Your task to perform on an android device: Search for "logitech g pro" on amazon, select the first entry, and add it to the cart. Image 0: 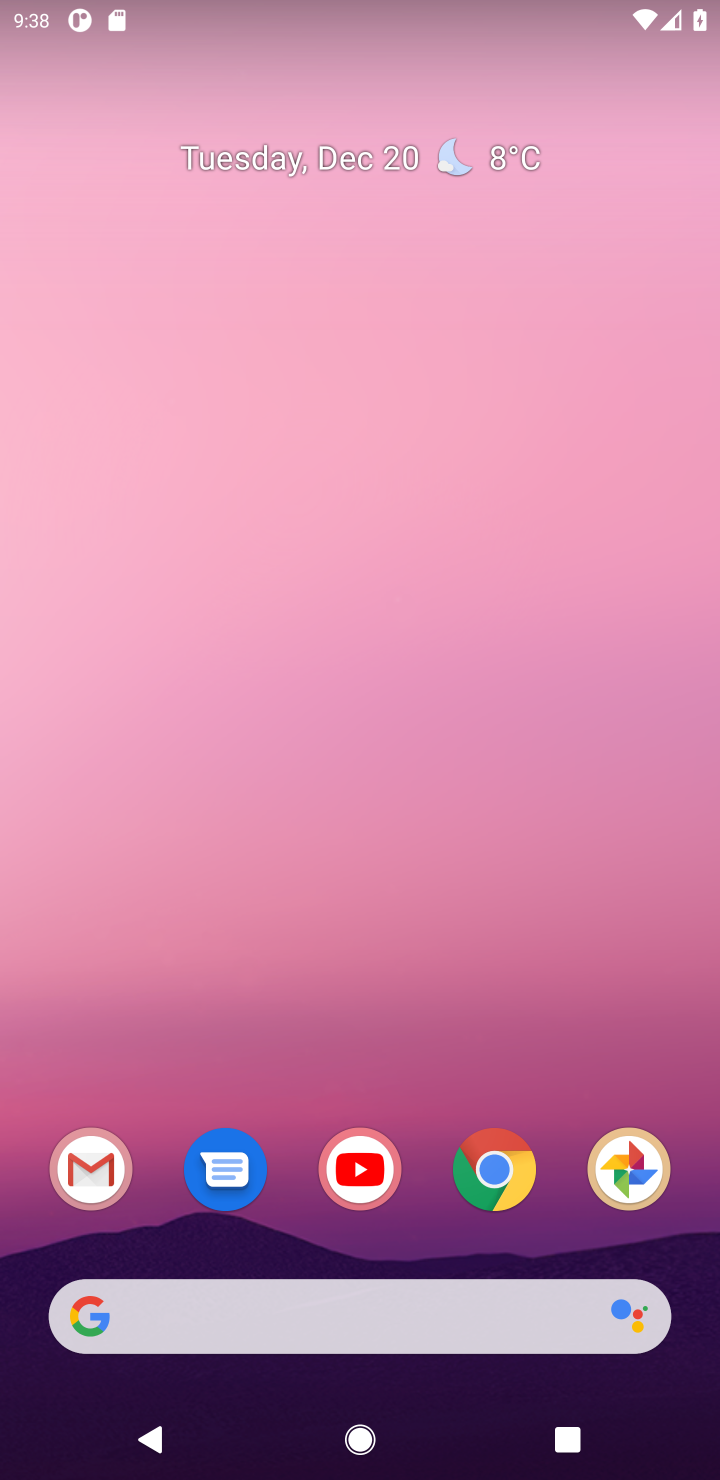
Step 0: click (506, 1193)
Your task to perform on an android device: Search for "logitech g pro" on amazon, select the first entry, and add it to the cart. Image 1: 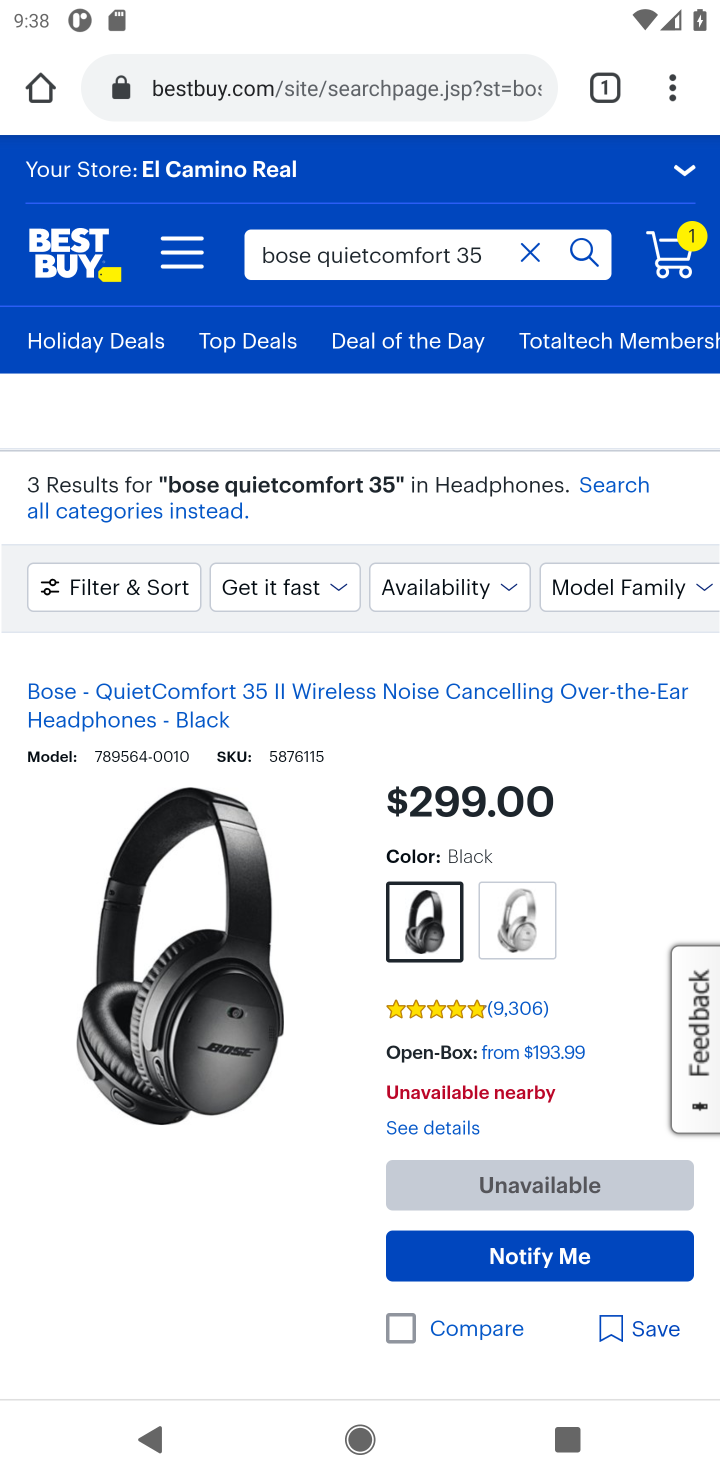
Step 1: click (280, 94)
Your task to perform on an android device: Search for "logitech g pro" on amazon, select the first entry, and add it to the cart. Image 2: 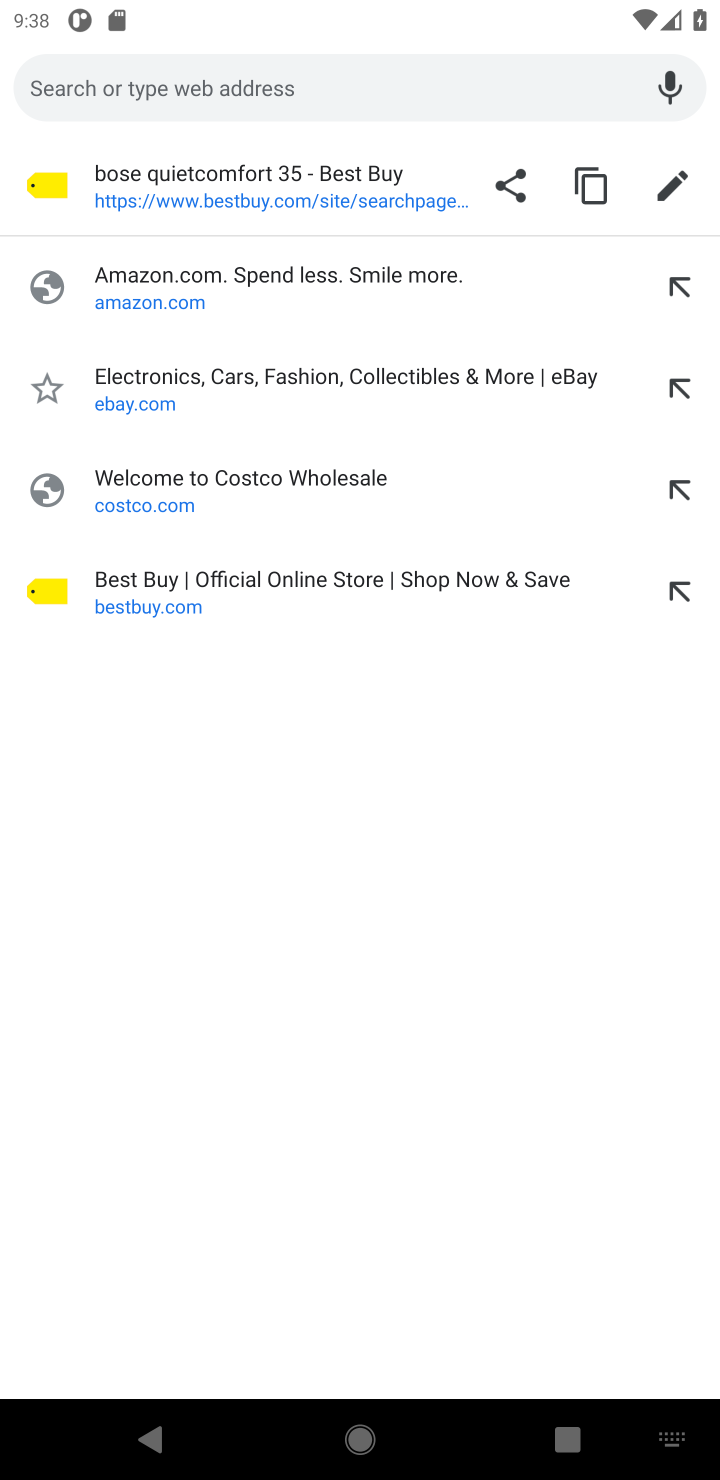
Step 2: type "amazon"
Your task to perform on an android device: Search for "logitech g pro" on amazon, select the first entry, and add it to the cart. Image 3: 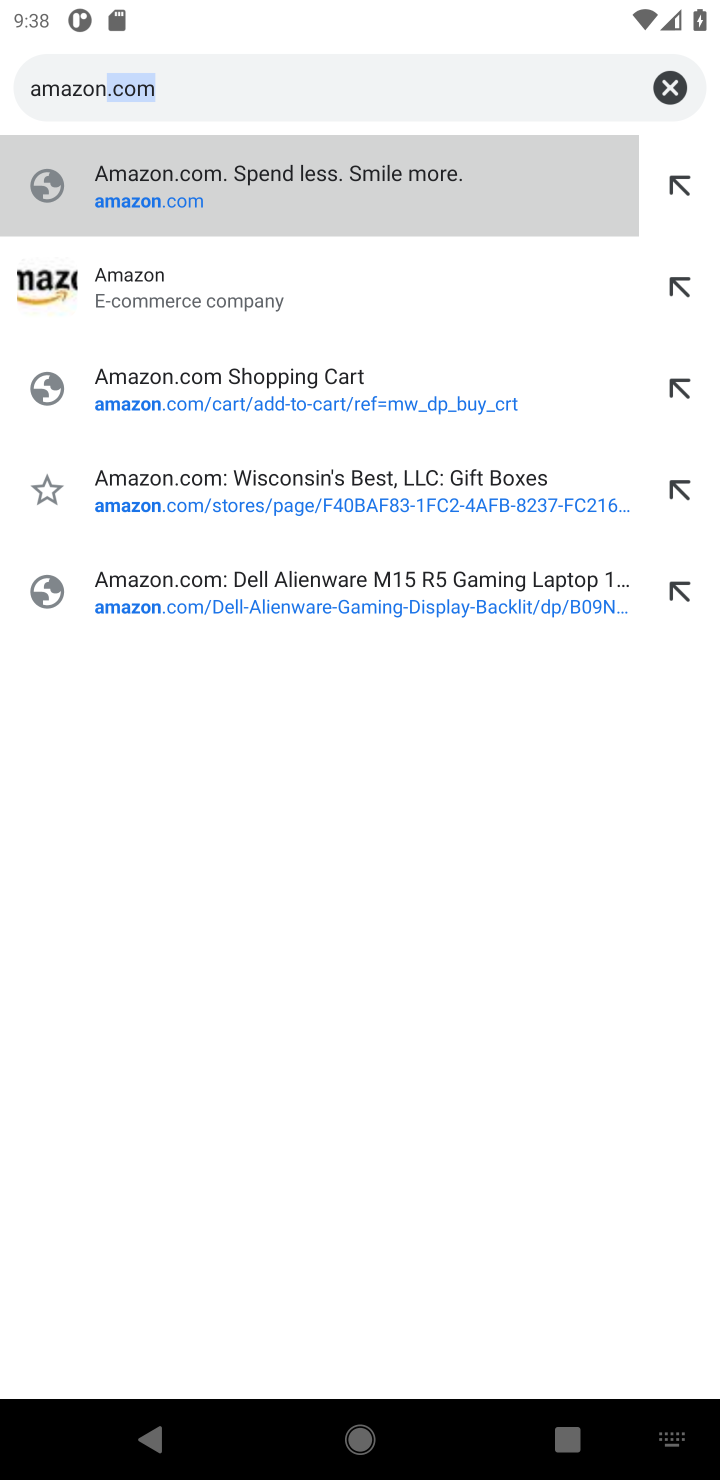
Step 3: click (223, 225)
Your task to perform on an android device: Search for "logitech g pro" on amazon, select the first entry, and add it to the cart. Image 4: 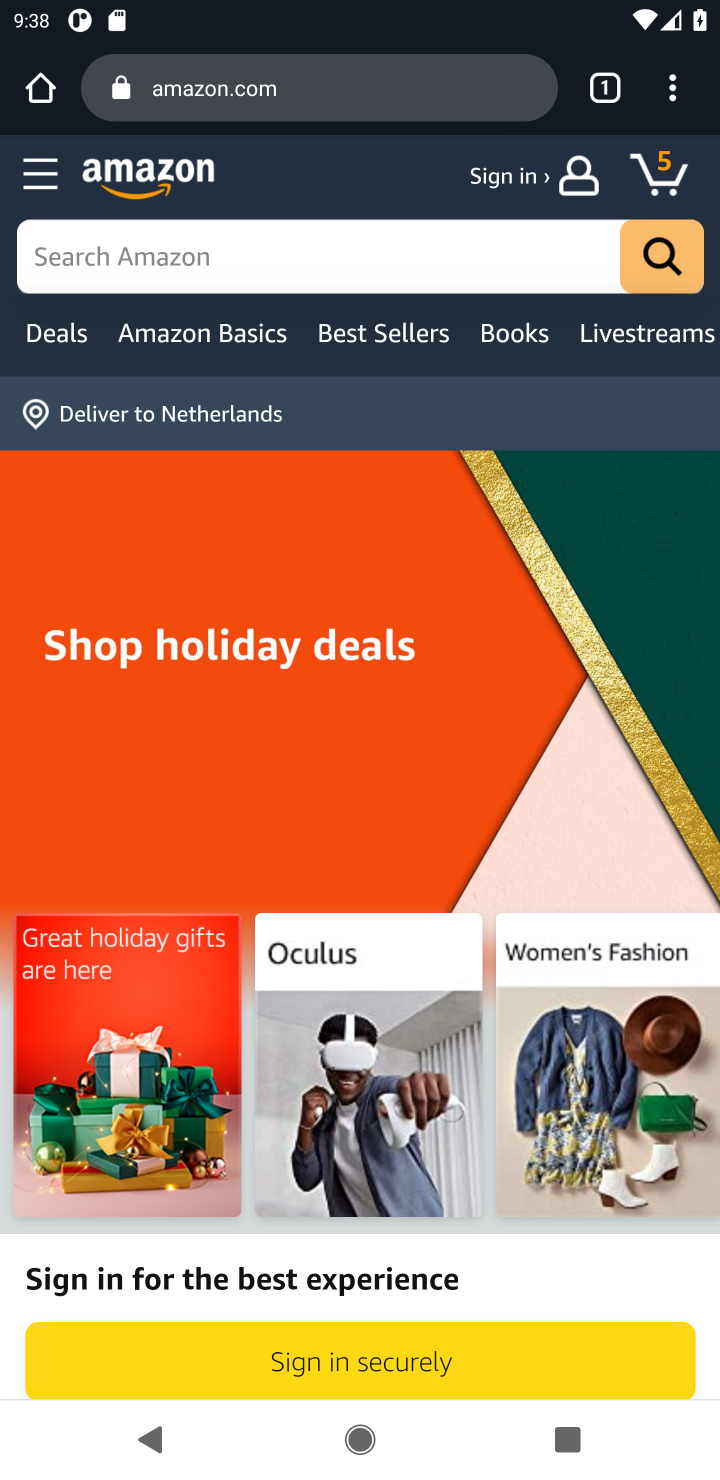
Step 4: click (204, 259)
Your task to perform on an android device: Search for "logitech g pro" on amazon, select the first entry, and add it to the cart. Image 5: 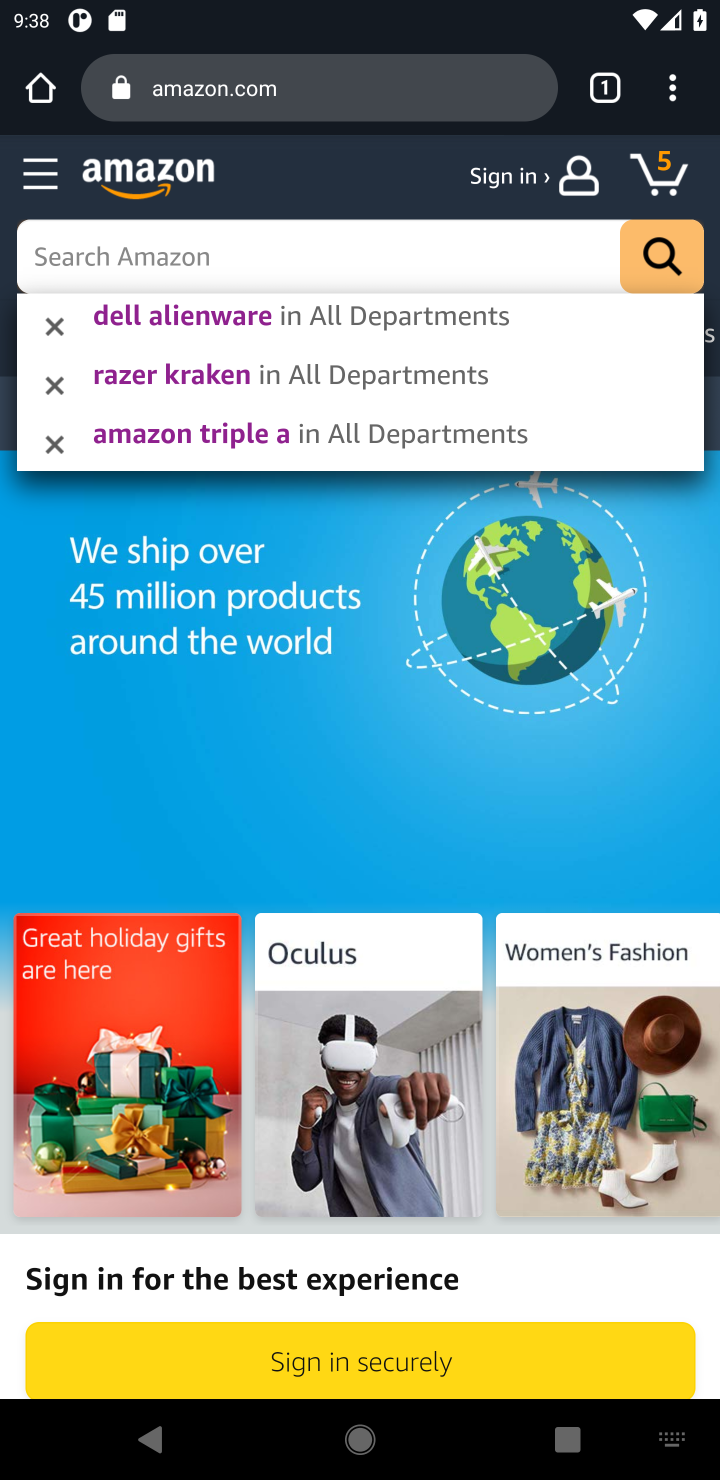
Step 5: type "logitech g pro"
Your task to perform on an android device: Search for "logitech g pro" on amazon, select the first entry, and add it to the cart. Image 6: 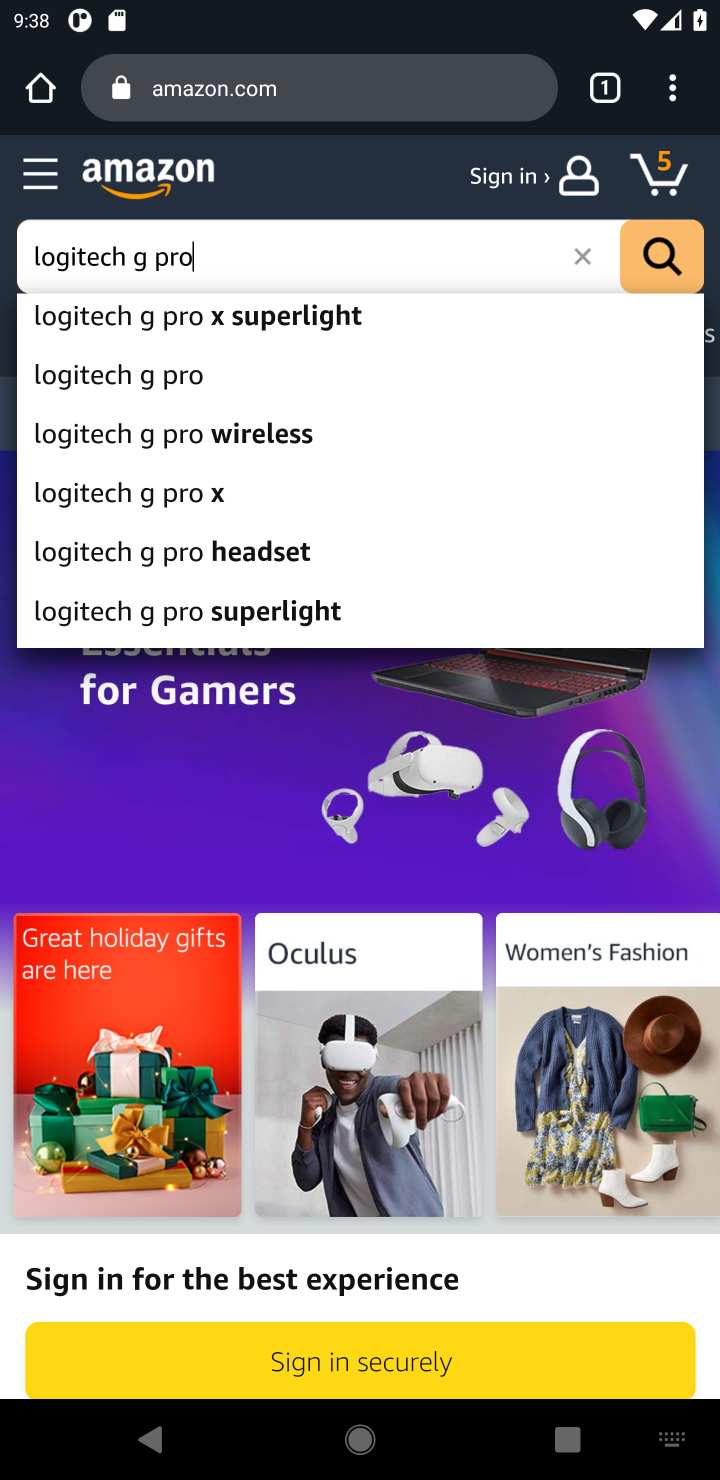
Step 6: click (642, 267)
Your task to perform on an android device: Search for "logitech g pro" on amazon, select the first entry, and add it to the cart. Image 7: 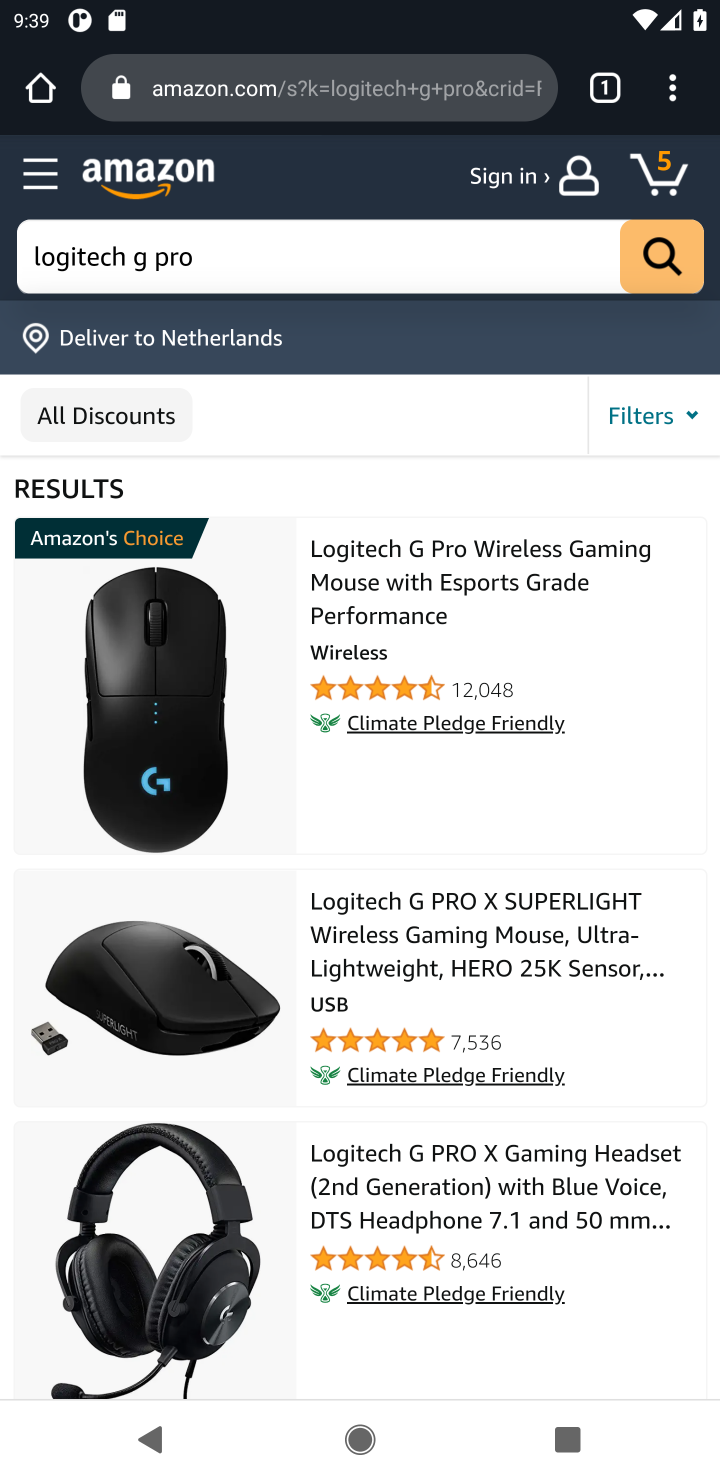
Step 7: click (547, 552)
Your task to perform on an android device: Search for "logitech g pro" on amazon, select the first entry, and add it to the cart. Image 8: 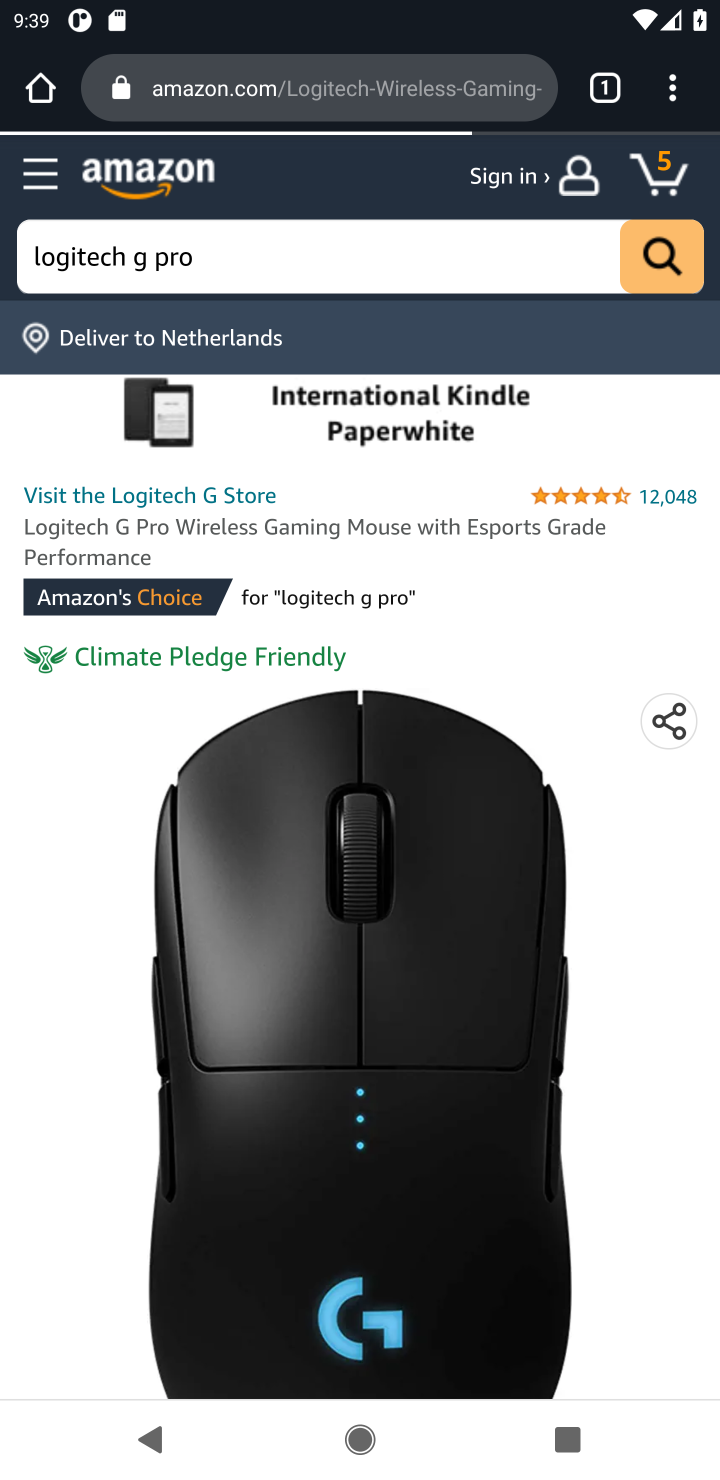
Step 8: drag from (486, 1127) to (416, 321)
Your task to perform on an android device: Search for "logitech g pro" on amazon, select the first entry, and add it to the cart. Image 9: 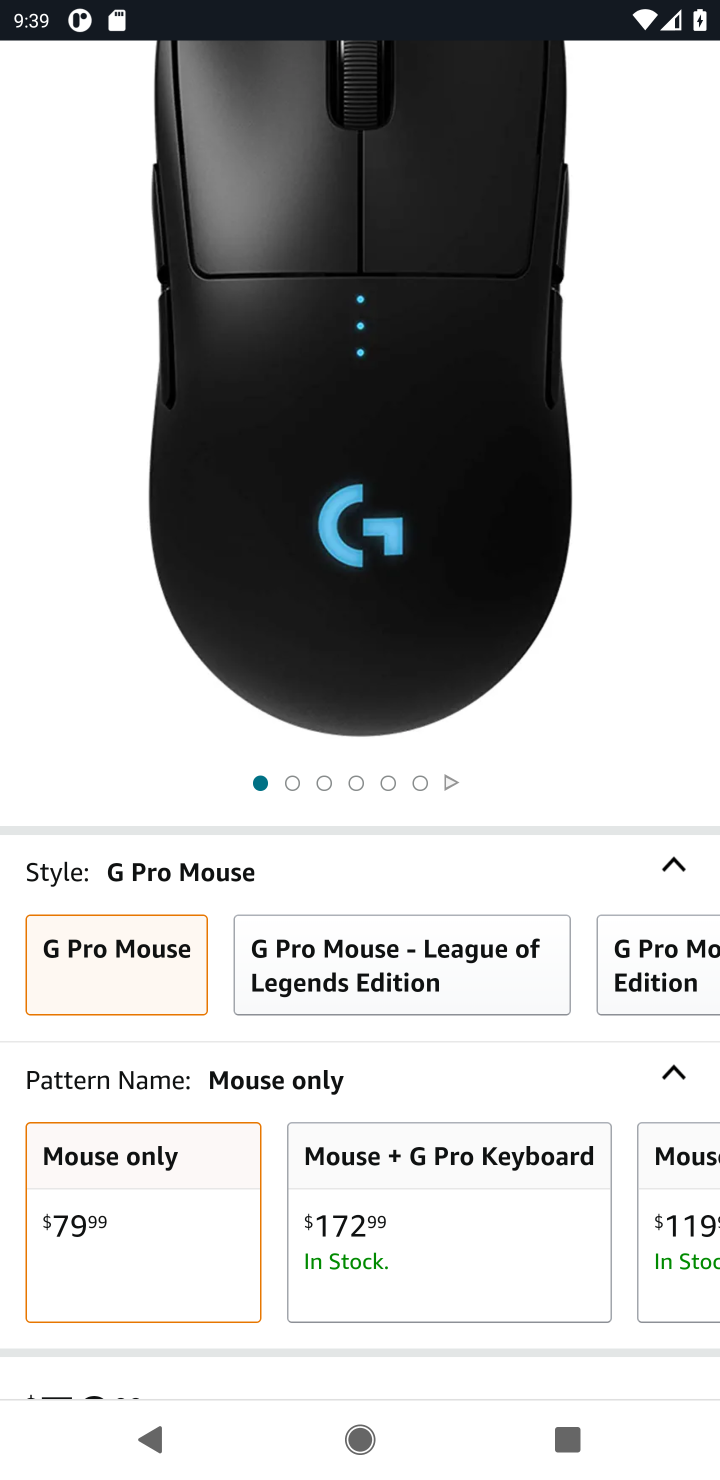
Step 9: click (123, 951)
Your task to perform on an android device: Search for "logitech g pro" on amazon, select the first entry, and add it to the cart. Image 10: 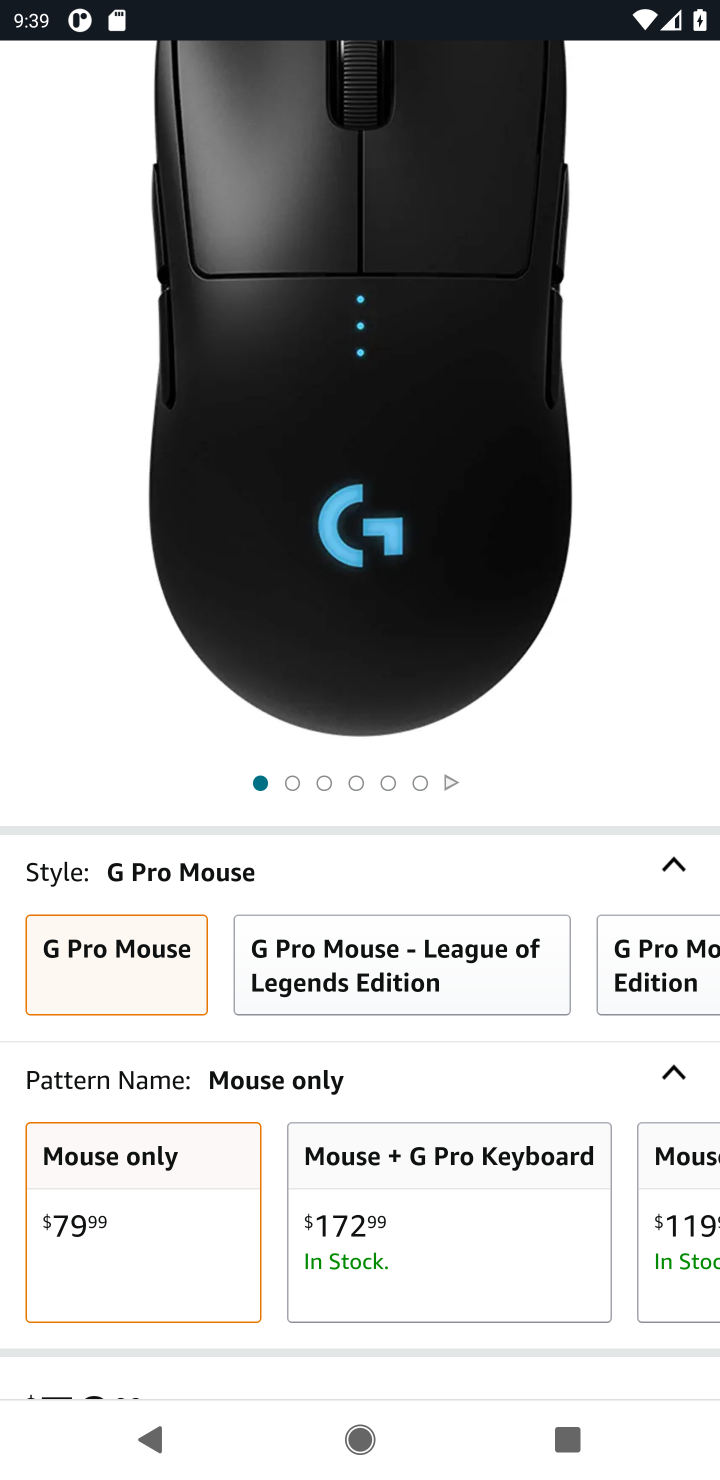
Step 10: task complete